Your task to perform on an android device: Open Youtube and go to "Your channel" Image 0: 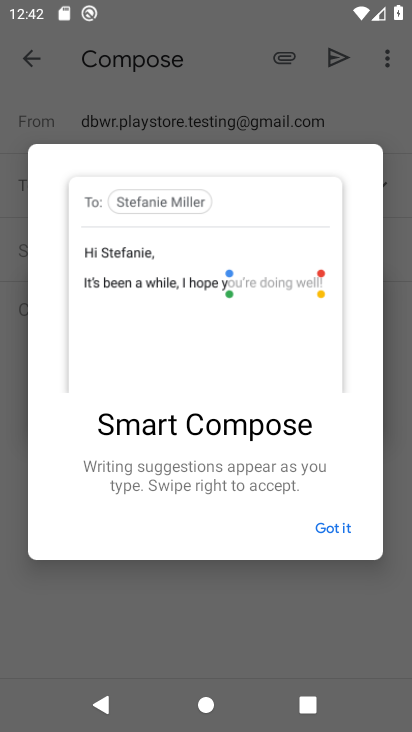
Step 0: press home button
Your task to perform on an android device: Open Youtube and go to "Your channel" Image 1: 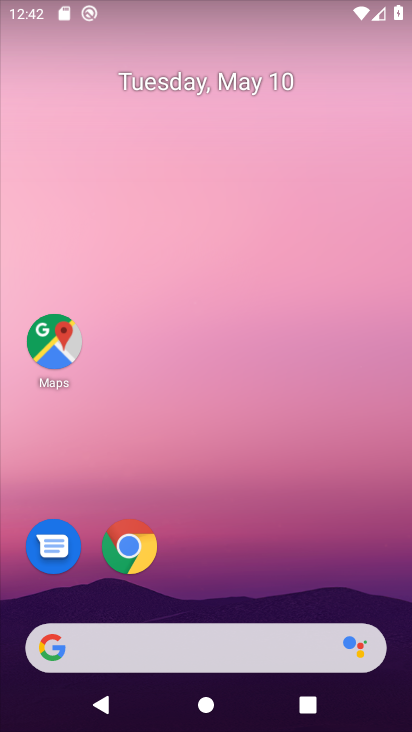
Step 1: drag from (249, 522) to (329, 0)
Your task to perform on an android device: Open Youtube and go to "Your channel" Image 2: 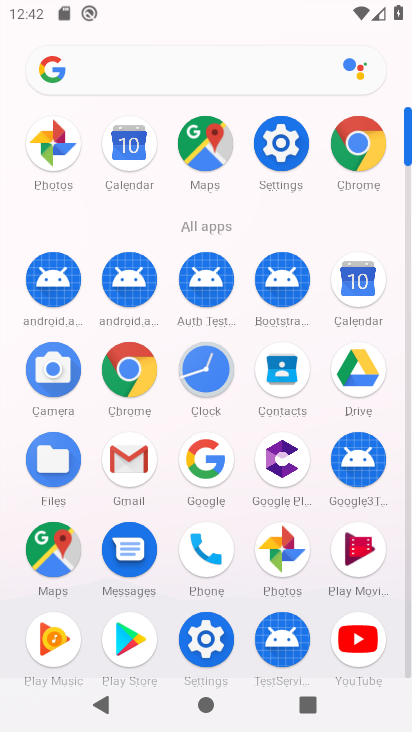
Step 2: click (362, 633)
Your task to perform on an android device: Open Youtube and go to "Your channel" Image 3: 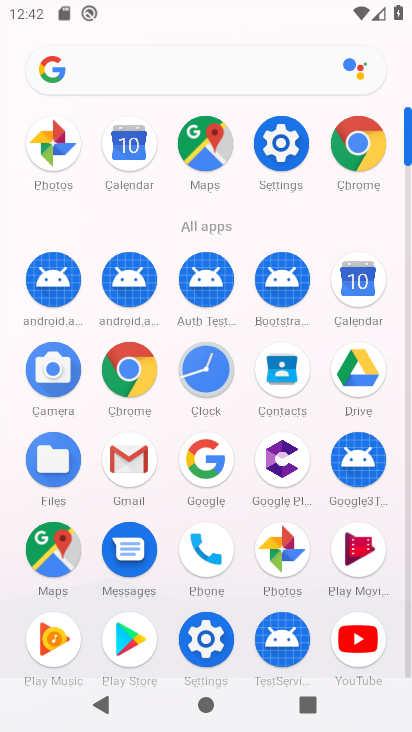
Step 3: click (368, 643)
Your task to perform on an android device: Open Youtube and go to "Your channel" Image 4: 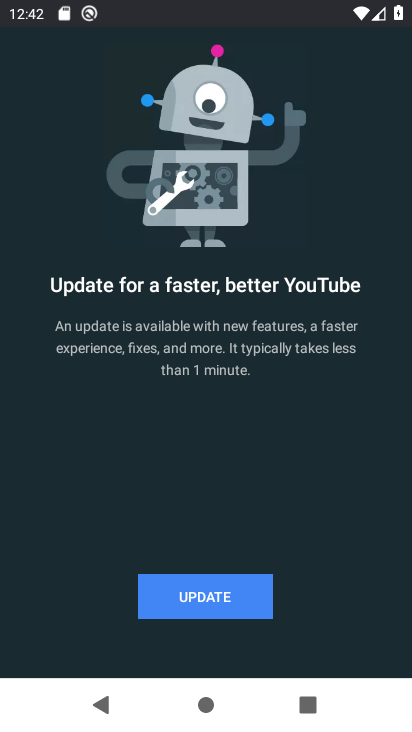
Step 4: click (240, 598)
Your task to perform on an android device: Open Youtube and go to "Your channel" Image 5: 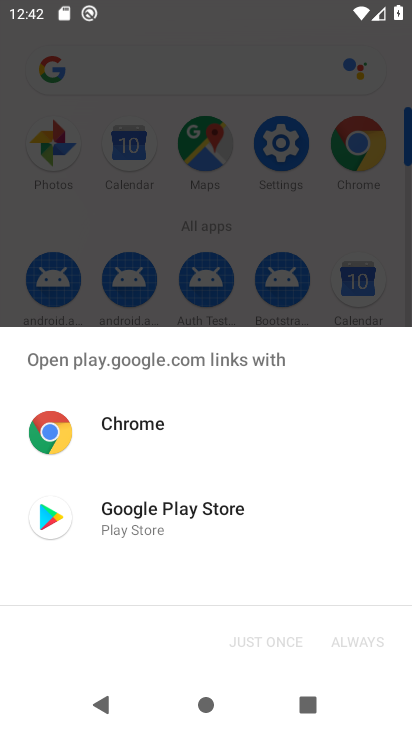
Step 5: click (188, 506)
Your task to perform on an android device: Open Youtube and go to "Your channel" Image 6: 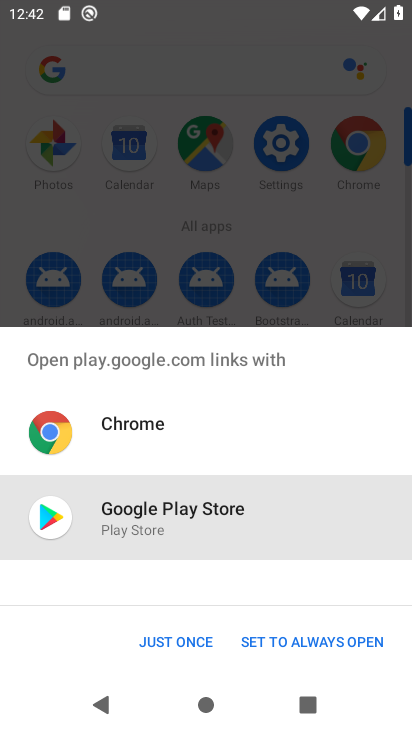
Step 6: click (140, 636)
Your task to perform on an android device: Open Youtube and go to "Your channel" Image 7: 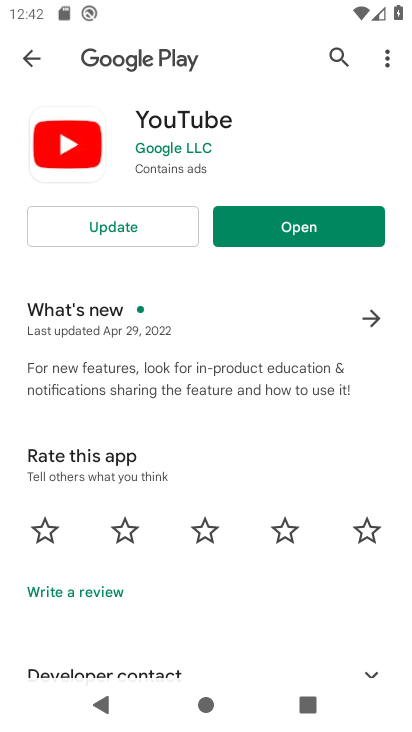
Step 7: click (121, 210)
Your task to perform on an android device: Open Youtube and go to "Your channel" Image 8: 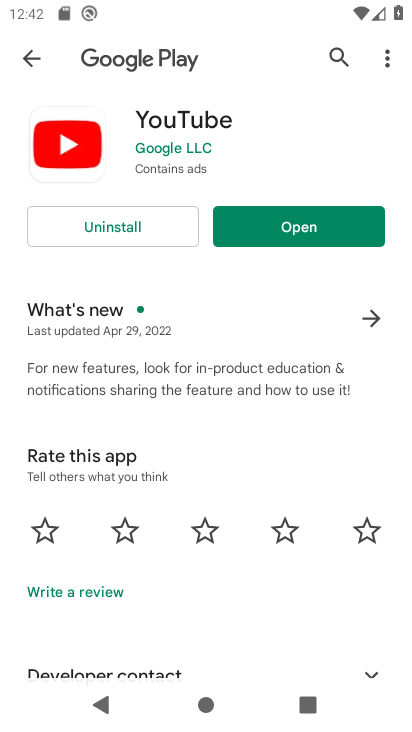
Step 8: click (307, 223)
Your task to perform on an android device: Open Youtube and go to "Your channel" Image 9: 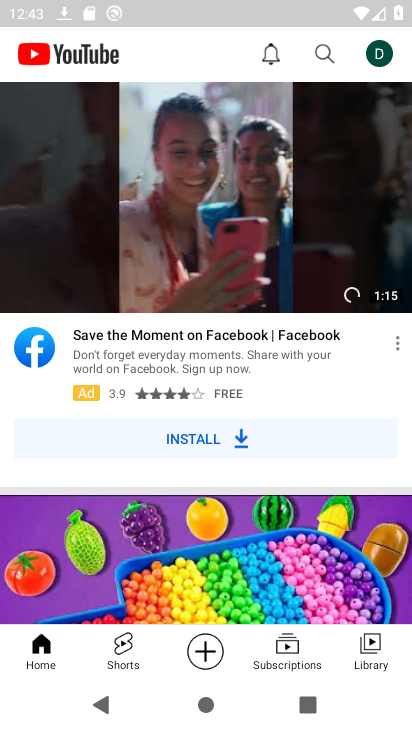
Step 9: click (374, 61)
Your task to perform on an android device: Open Youtube and go to "Your channel" Image 10: 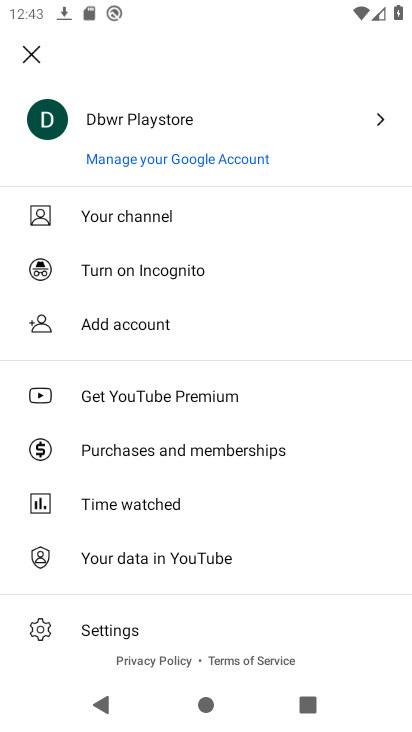
Step 10: click (178, 223)
Your task to perform on an android device: Open Youtube and go to "Your channel" Image 11: 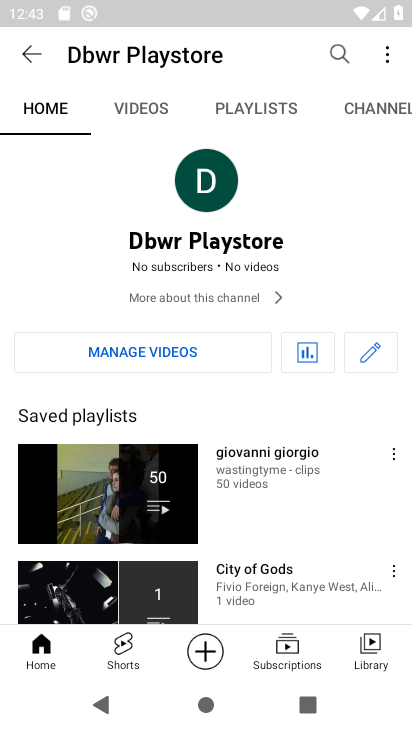
Step 11: task complete